Your task to perform on an android device: Open calendar and show me the first week of next month Image 0: 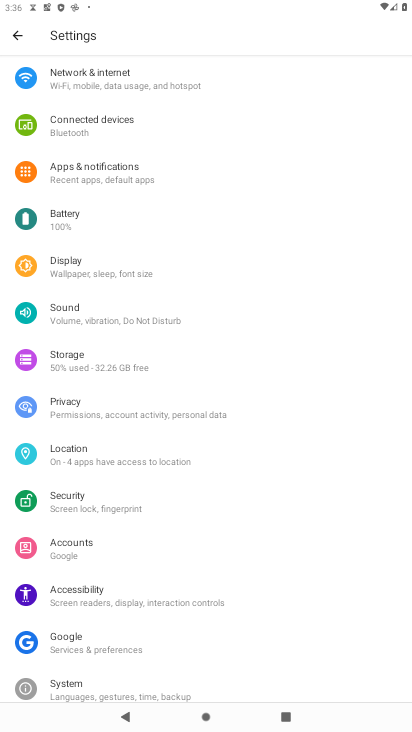
Step 0: press home button
Your task to perform on an android device: Open calendar and show me the first week of next month Image 1: 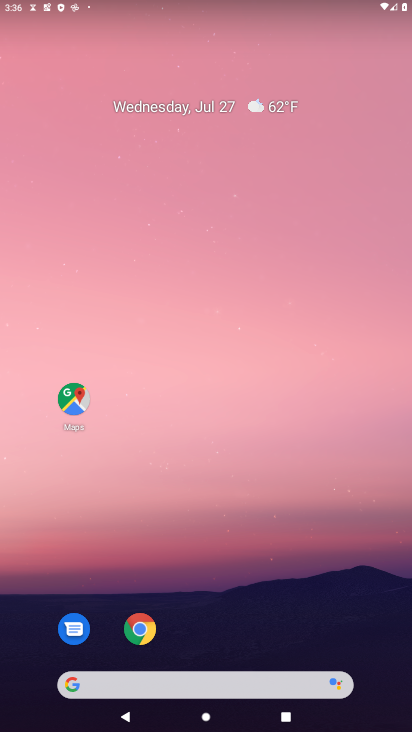
Step 1: drag from (194, 685) to (339, 19)
Your task to perform on an android device: Open calendar and show me the first week of next month Image 2: 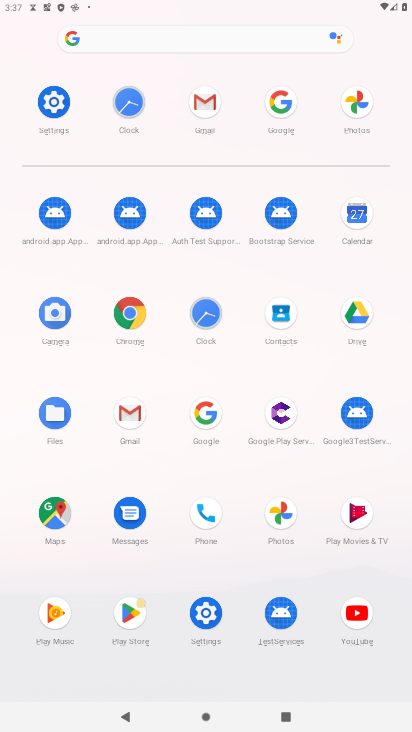
Step 2: click (358, 217)
Your task to perform on an android device: Open calendar and show me the first week of next month Image 3: 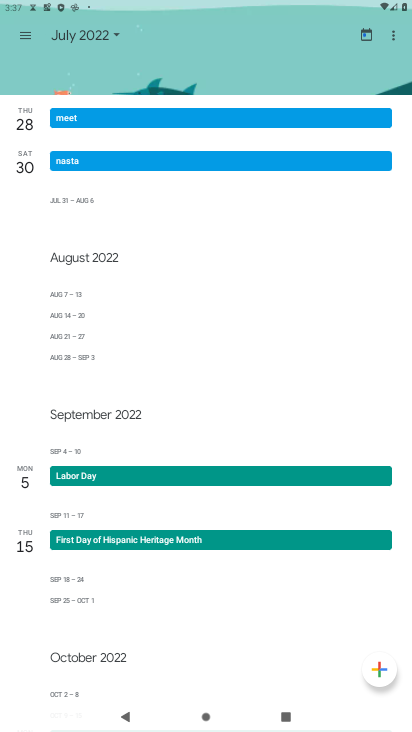
Step 3: click (367, 37)
Your task to perform on an android device: Open calendar and show me the first week of next month Image 4: 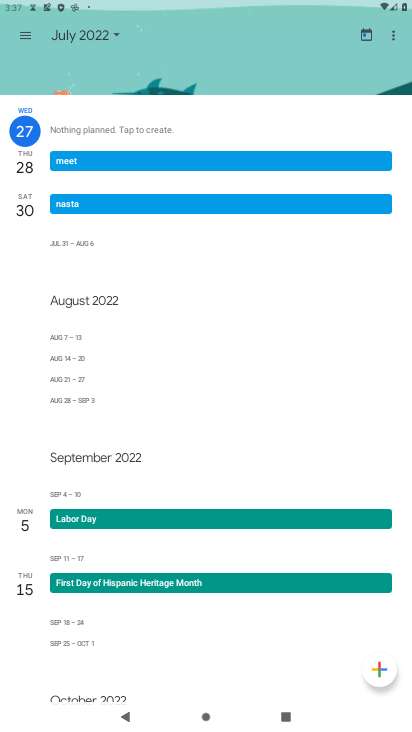
Step 4: click (116, 35)
Your task to perform on an android device: Open calendar and show me the first week of next month Image 5: 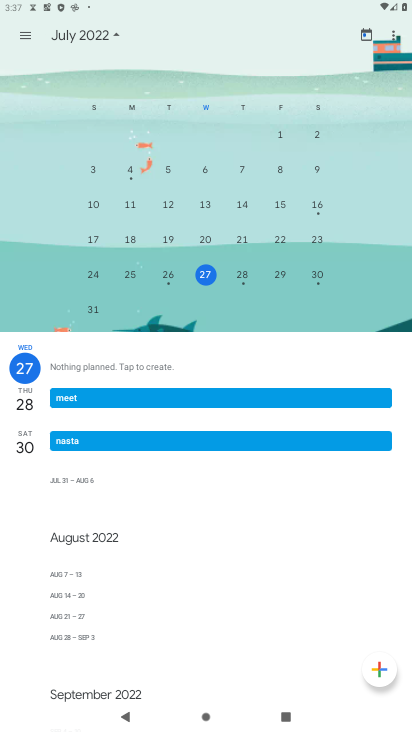
Step 5: drag from (327, 250) to (2, 308)
Your task to perform on an android device: Open calendar and show me the first week of next month Image 6: 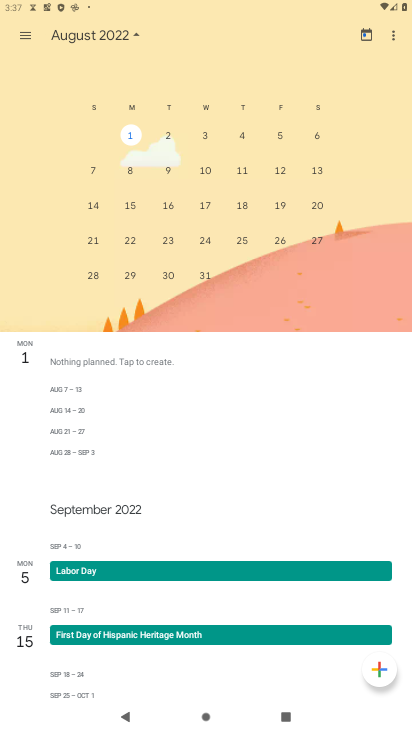
Step 6: click (131, 134)
Your task to perform on an android device: Open calendar and show me the first week of next month Image 7: 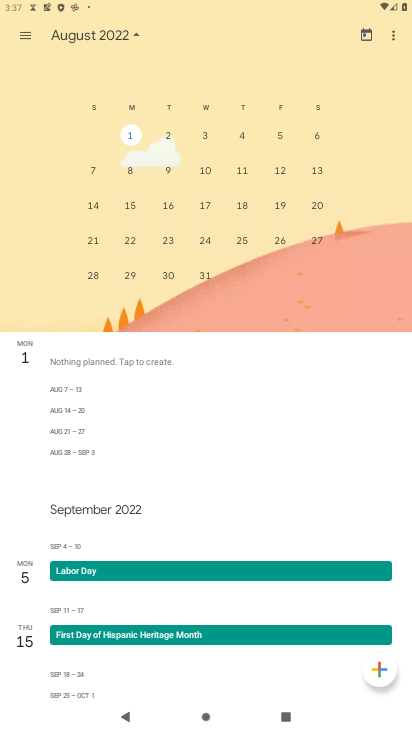
Step 7: click (25, 36)
Your task to perform on an android device: Open calendar and show me the first week of next month Image 8: 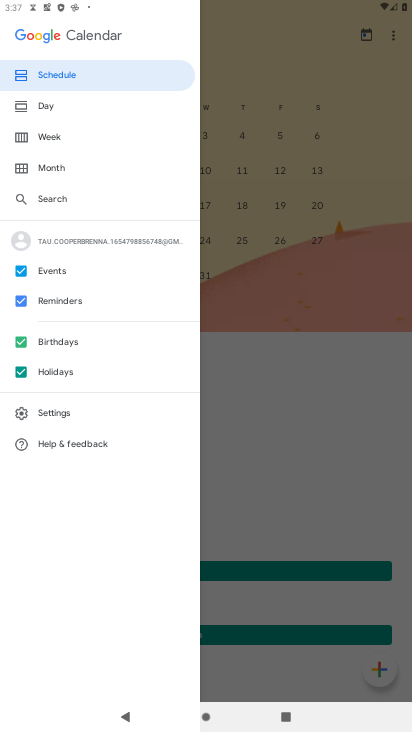
Step 8: click (53, 134)
Your task to perform on an android device: Open calendar and show me the first week of next month Image 9: 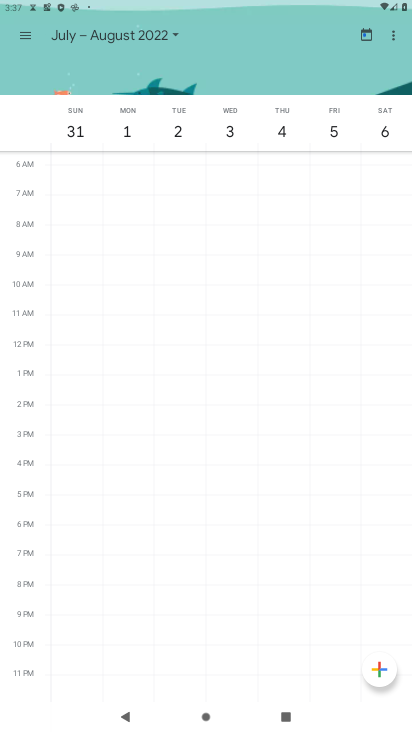
Step 9: task complete